Your task to perform on an android device: Show the shopping cart on amazon.com. Image 0: 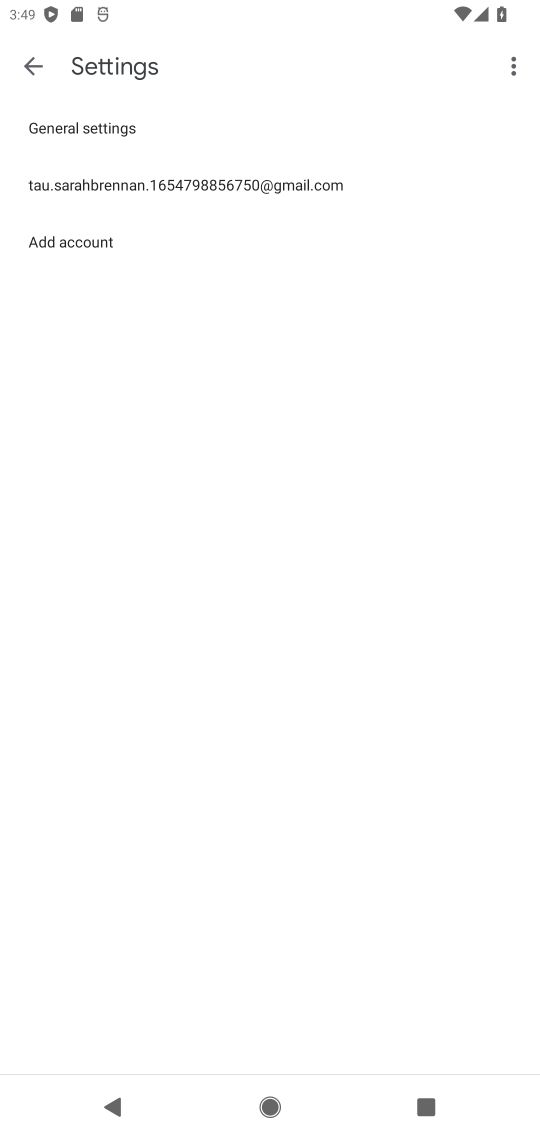
Step 0: press home button
Your task to perform on an android device: Show the shopping cart on amazon.com. Image 1: 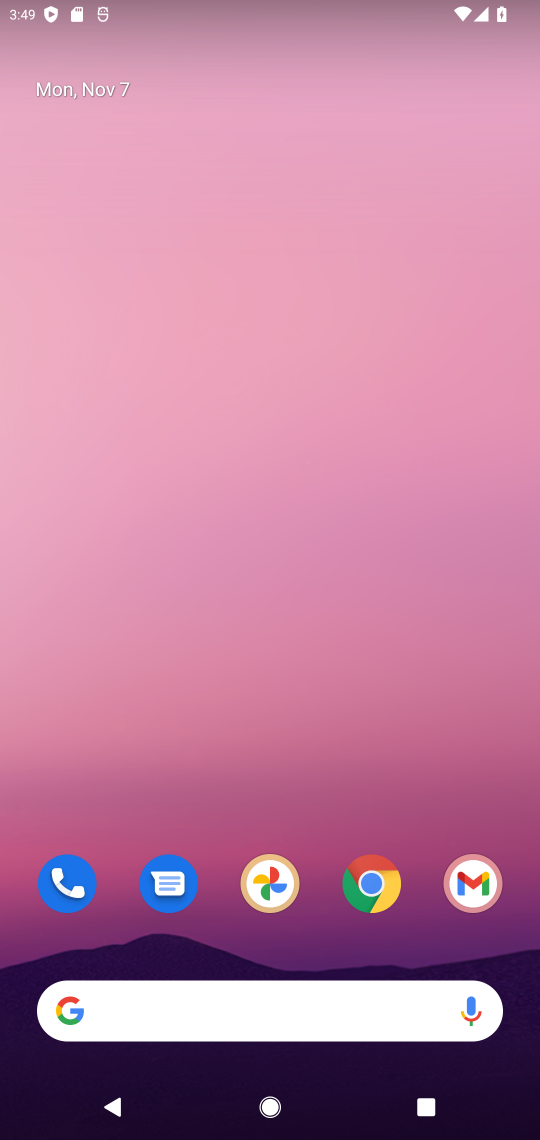
Step 1: click (371, 883)
Your task to perform on an android device: Show the shopping cart on amazon.com. Image 2: 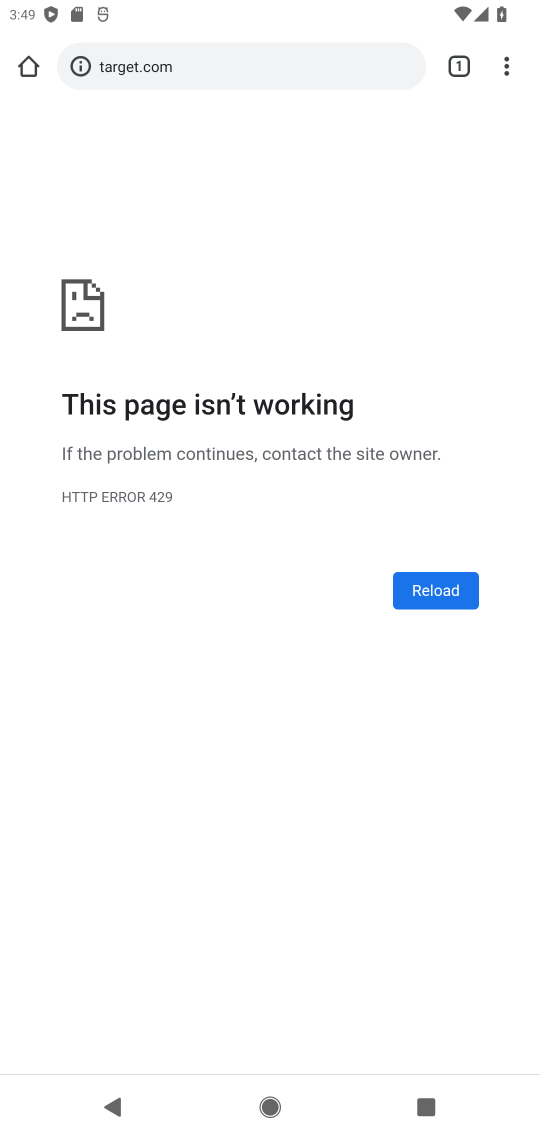
Step 2: click (260, 50)
Your task to perform on an android device: Show the shopping cart on amazon.com. Image 3: 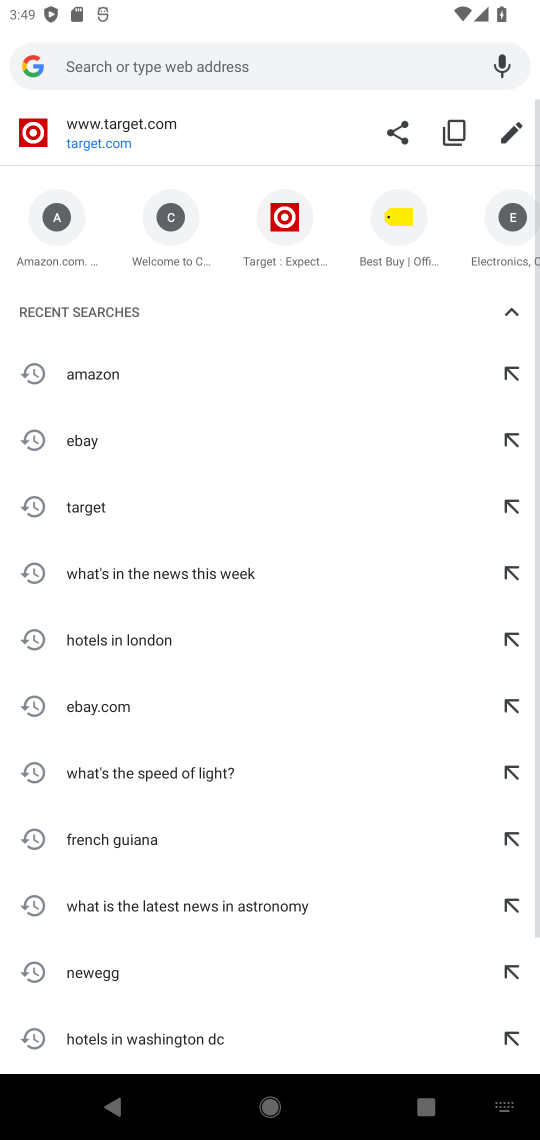
Step 3: click (57, 258)
Your task to perform on an android device: Show the shopping cart on amazon.com. Image 4: 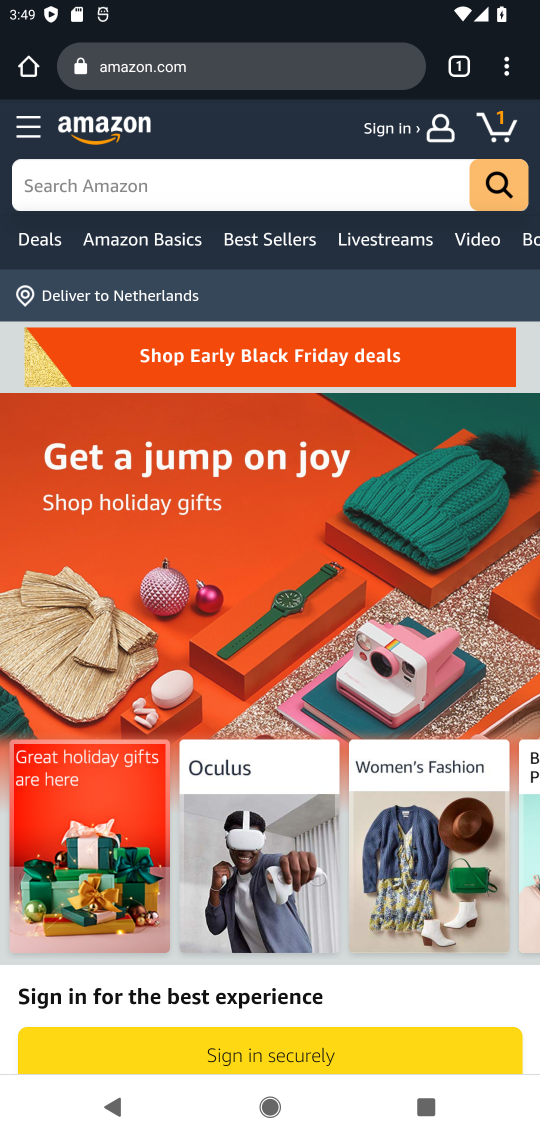
Step 4: click (492, 127)
Your task to perform on an android device: Show the shopping cart on amazon.com. Image 5: 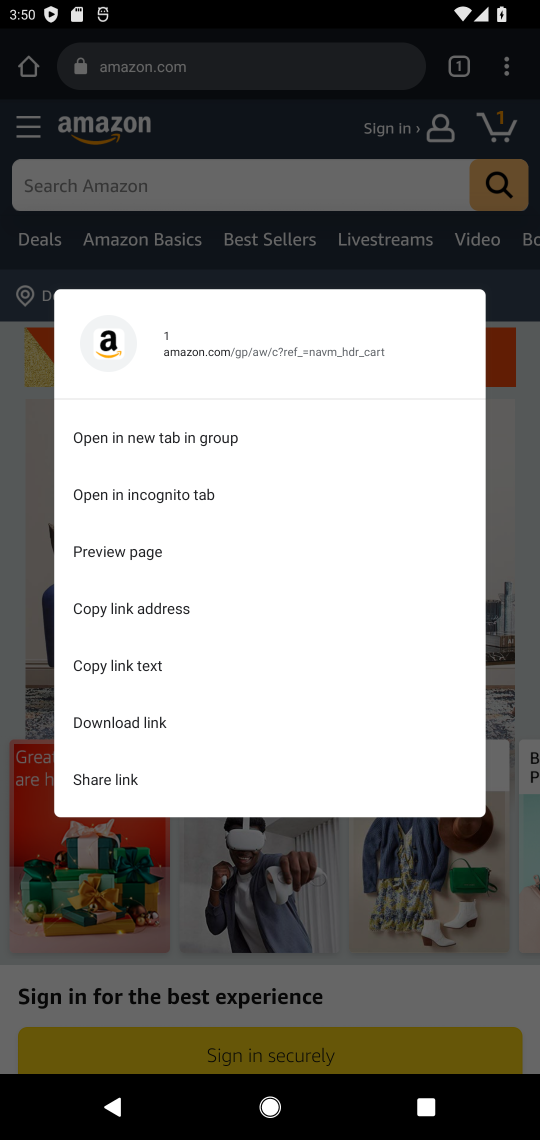
Step 5: click (493, 116)
Your task to perform on an android device: Show the shopping cart on amazon.com. Image 6: 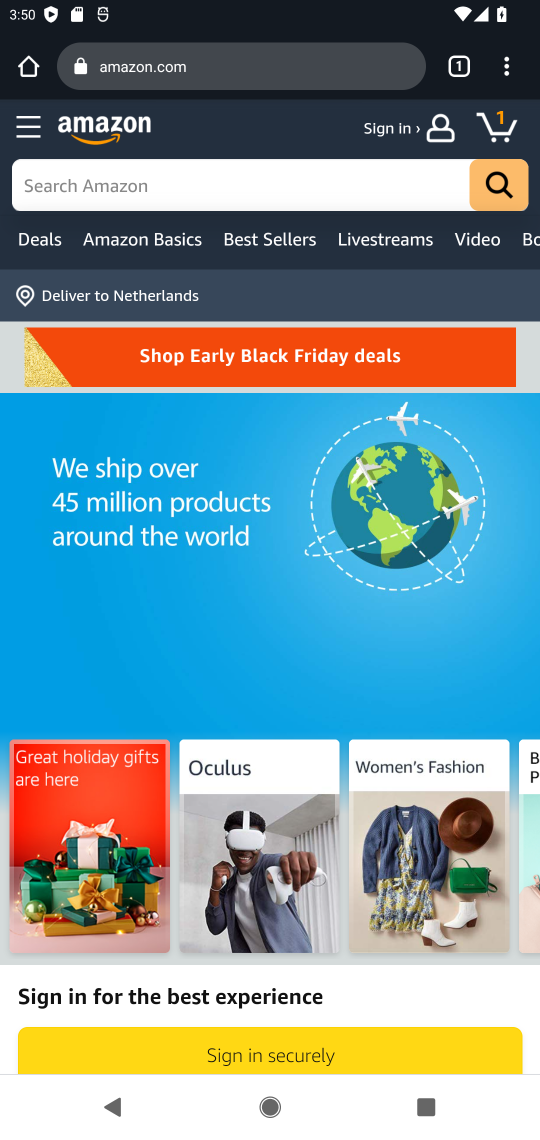
Step 6: click (502, 122)
Your task to perform on an android device: Show the shopping cart on amazon.com. Image 7: 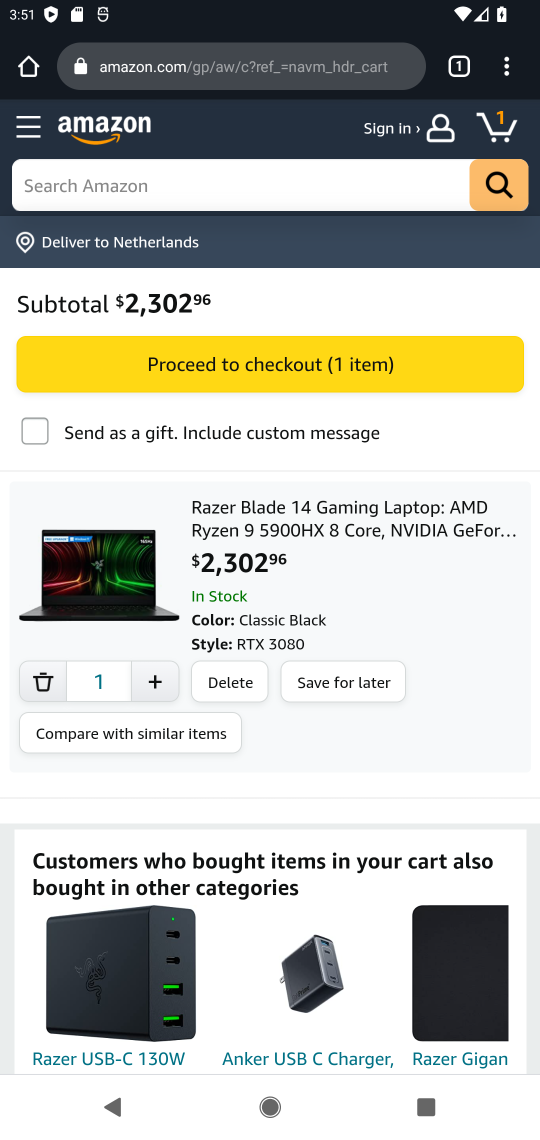
Step 7: task complete